Your task to perform on an android device: turn off wifi Image 0: 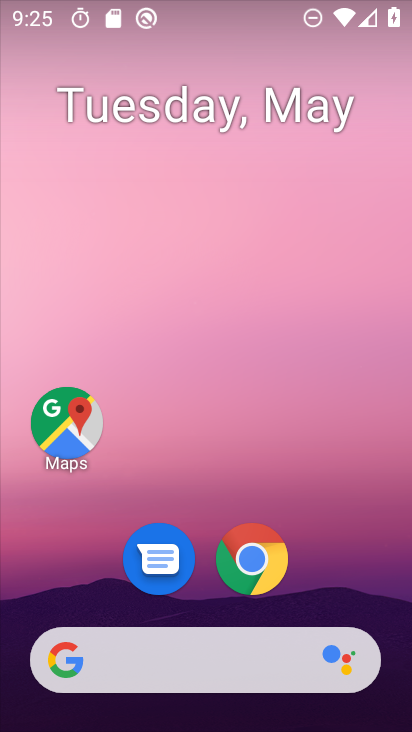
Step 0: drag from (207, 6) to (171, 487)
Your task to perform on an android device: turn off wifi Image 1: 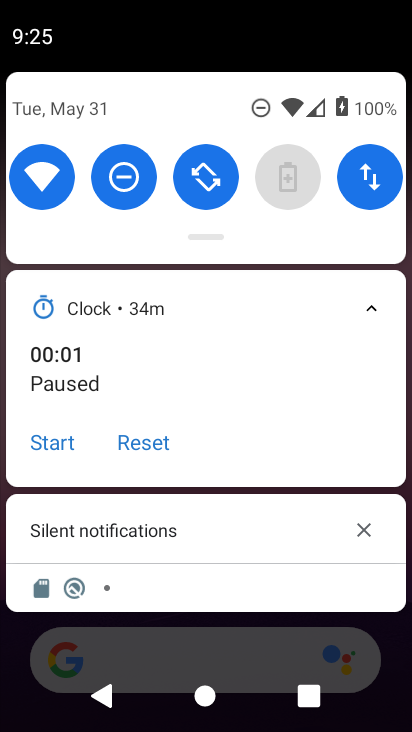
Step 1: click (42, 172)
Your task to perform on an android device: turn off wifi Image 2: 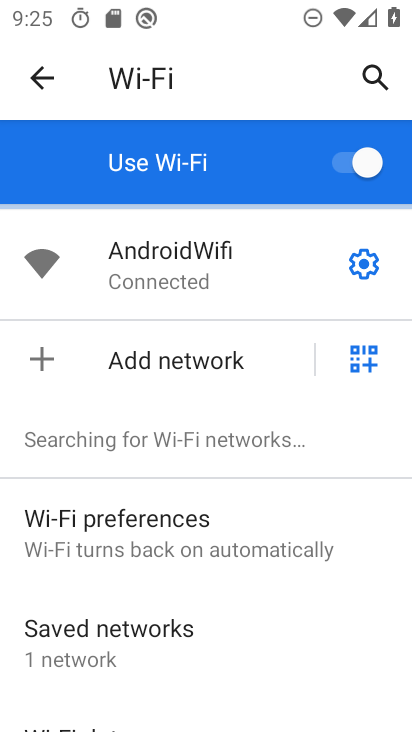
Step 2: click (309, 156)
Your task to perform on an android device: turn off wifi Image 3: 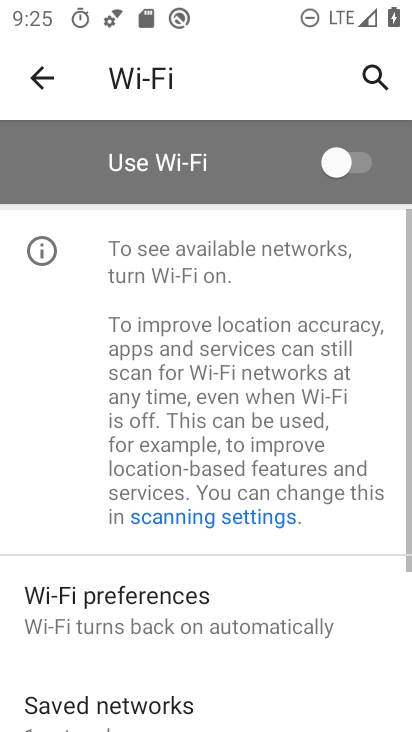
Step 3: task complete